Your task to perform on an android device: set the timer Image 0: 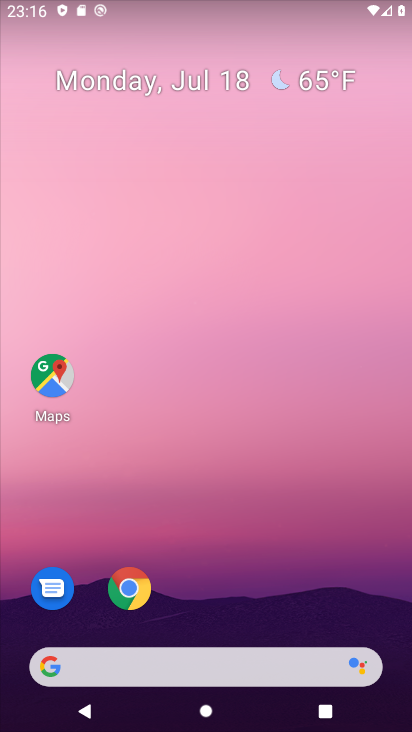
Step 0: press home button
Your task to perform on an android device: set the timer Image 1: 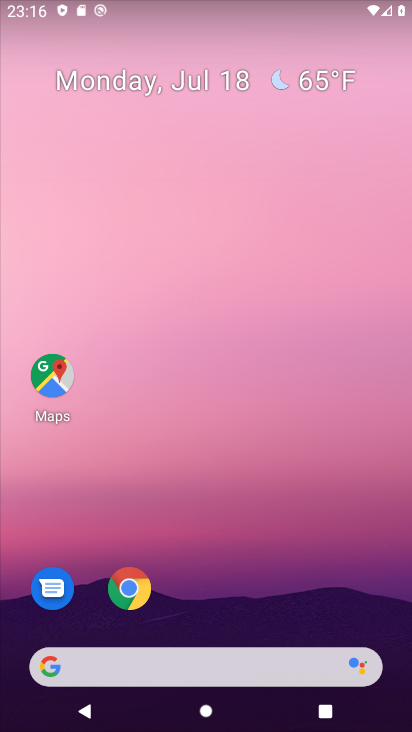
Step 1: drag from (332, 566) to (342, 157)
Your task to perform on an android device: set the timer Image 2: 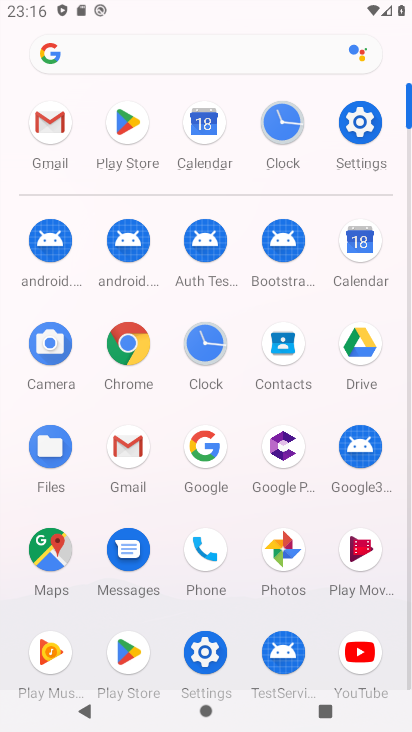
Step 2: click (278, 118)
Your task to perform on an android device: set the timer Image 3: 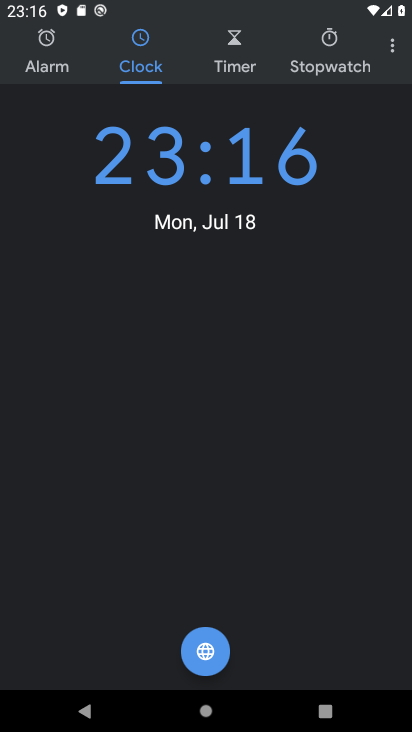
Step 3: click (235, 48)
Your task to perform on an android device: set the timer Image 4: 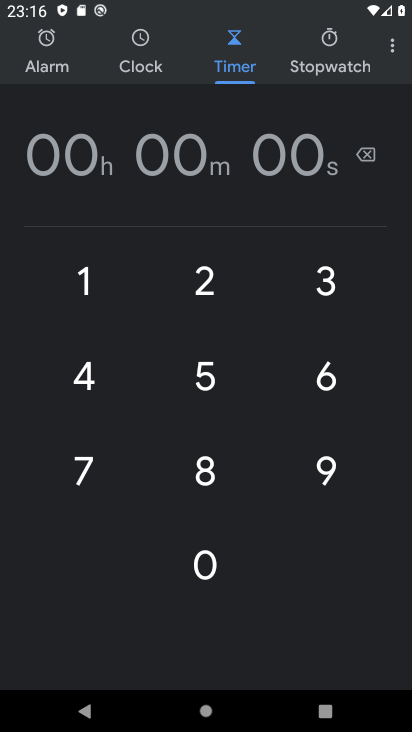
Step 4: click (85, 279)
Your task to perform on an android device: set the timer Image 5: 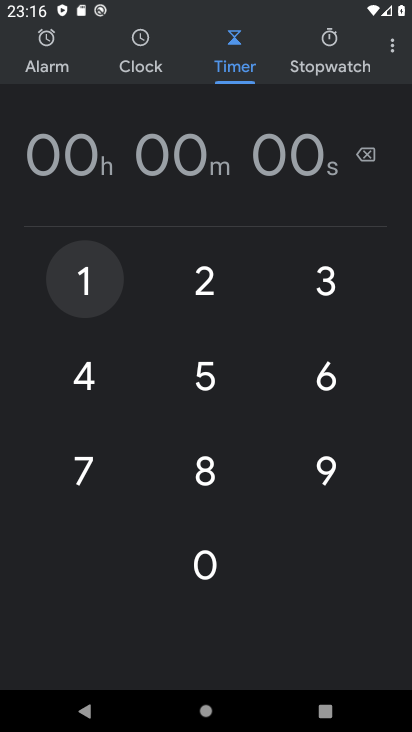
Step 5: click (85, 279)
Your task to perform on an android device: set the timer Image 6: 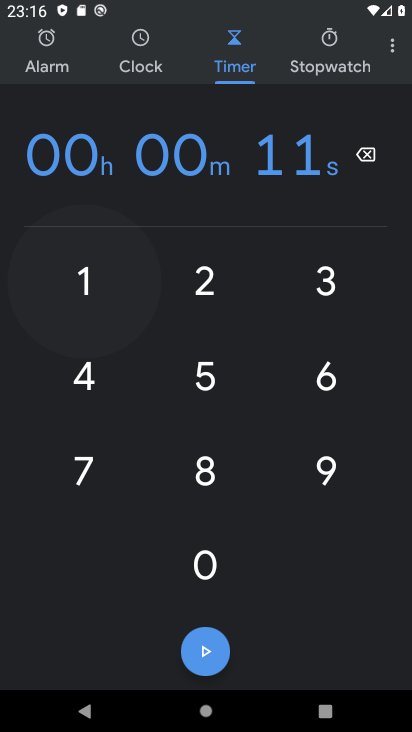
Step 6: click (85, 279)
Your task to perform on an android device: set the timer Image 7: 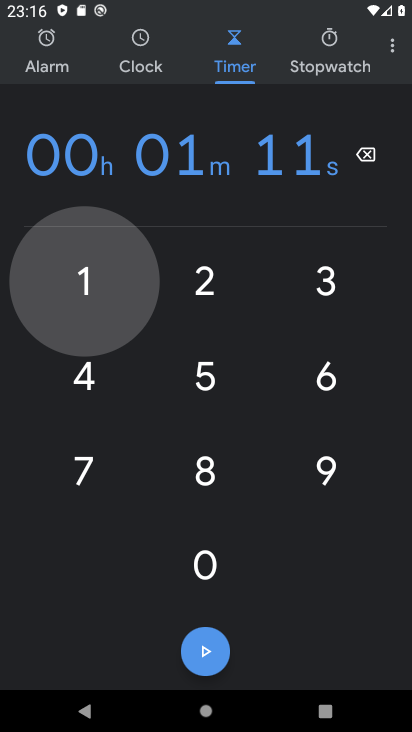
Step 7: click (85, 279)
Your task to perform on an android device: set the timer Image 8: 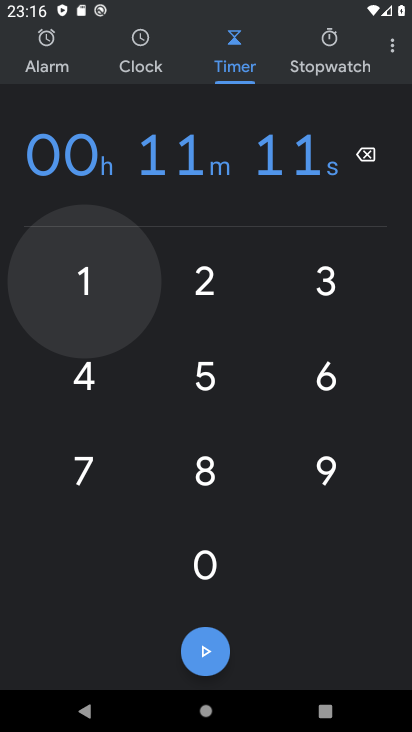
Step 8: click (85, 279)
Your task to perform on an android device: set the timer Image 9: 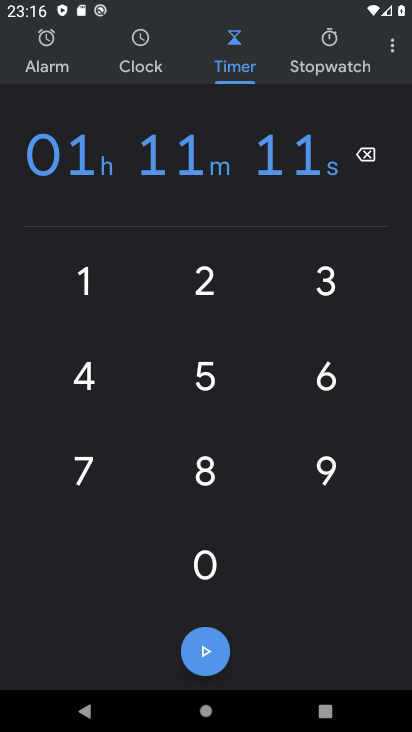
Step 9: click (188, 376)
Your task to perform on an android device: set the timer Image 10: 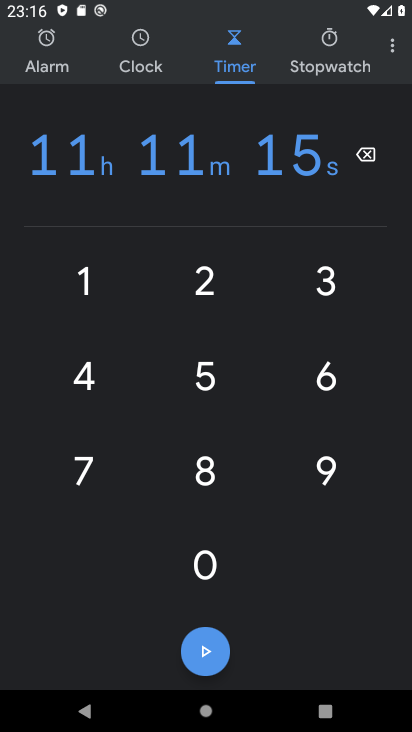
Step 10: click (216, 652)
Your task to perform on an android device: set the timer Image 11: 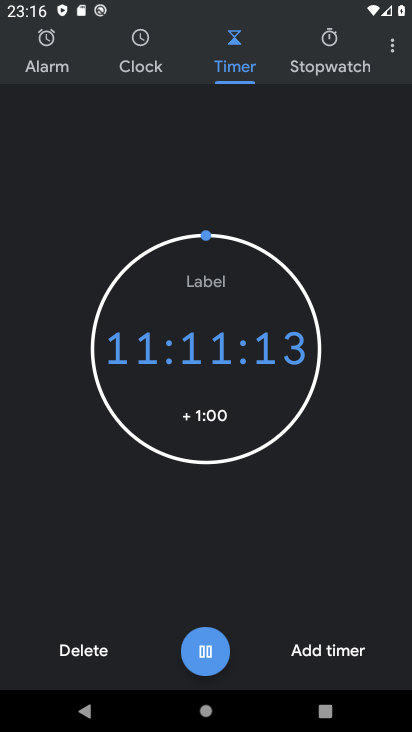
Step 11: task complete